Your task to perform on an android device: install app "WhatsApp Messenger" Image 0: 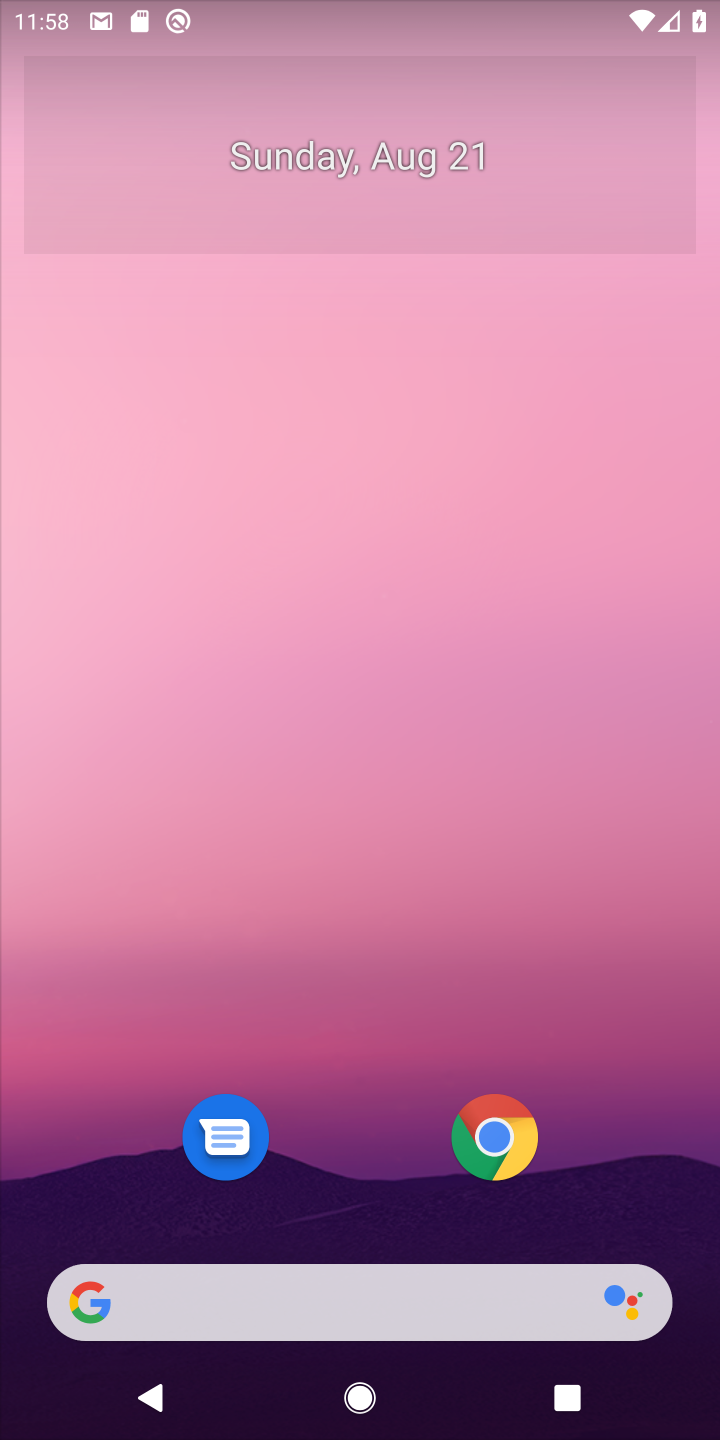
Step 0: drag from (630, 1198) to (570, 194)
Your task to perform on an android device: install app "WhatsApp Messenger" Image 1: 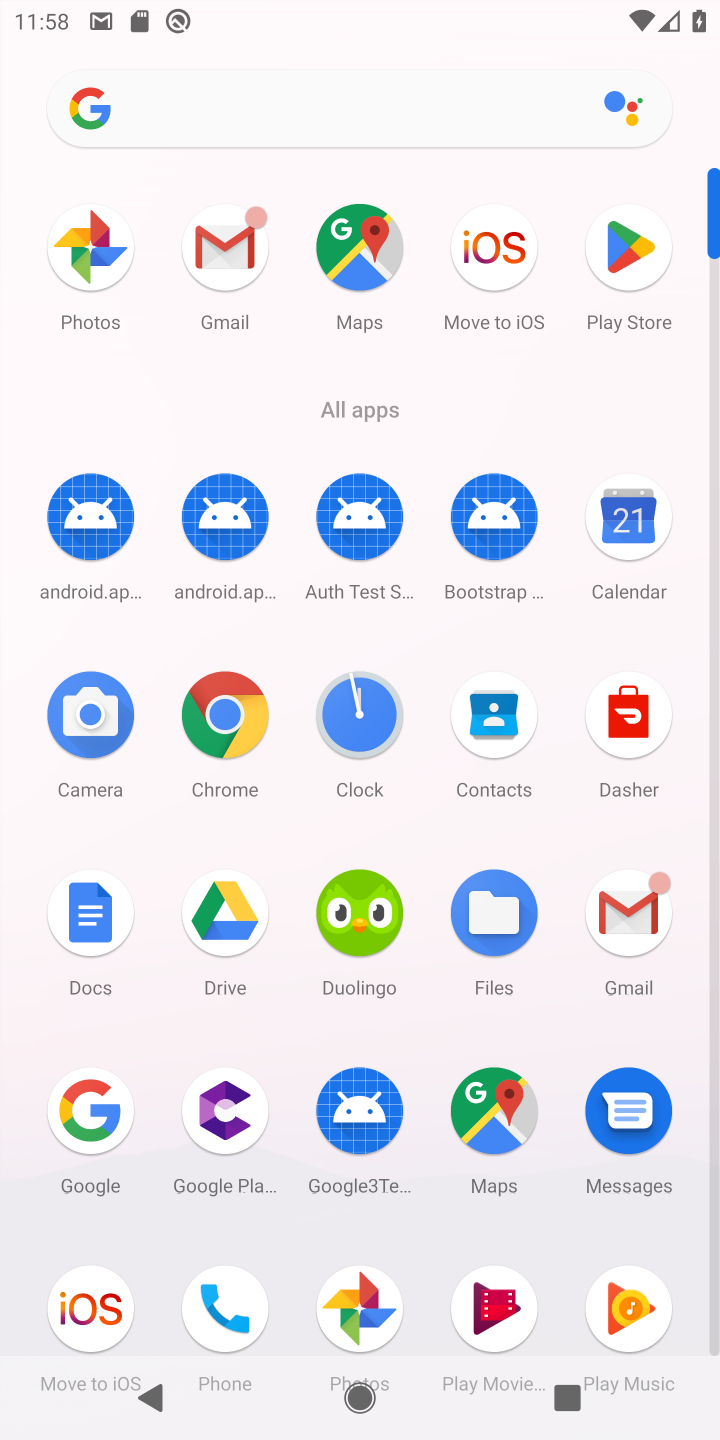
Step 1: task complete